Your task to perform on an android device: Go to Google maps Image 0: 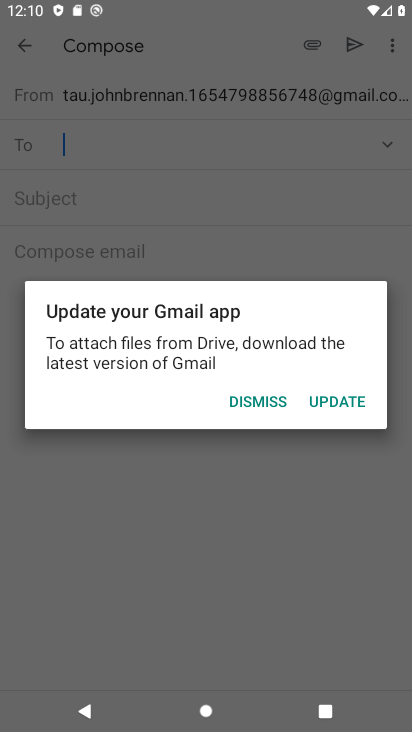
Step 0: press home button
Your task to perform on an android device: Go to Google maps Image 1: 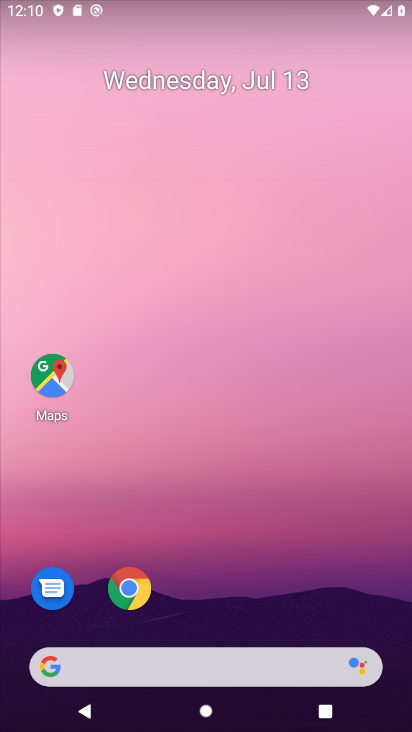
Step 1: drag from (200, 648) to (195, 269)
Your task to perform on an android device: Go to Google maps Image 2: 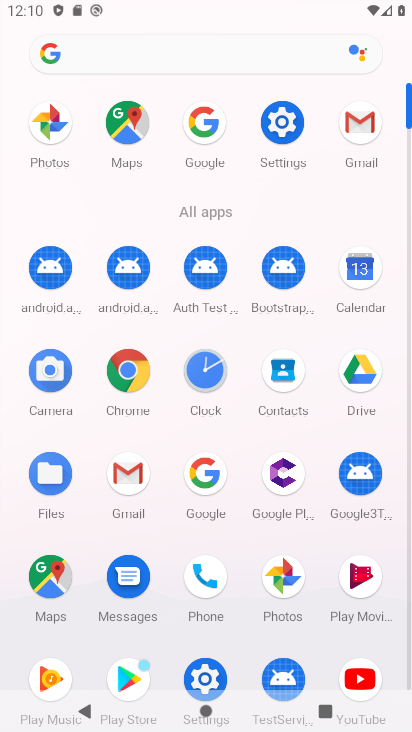
Step 2: click (183, 469)
Your task to perform on an android device: Go to Google maps Image 3: 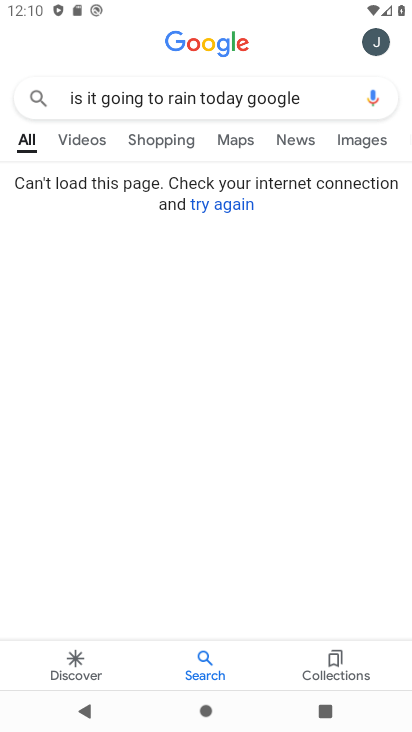
Step 3: click (240, 210)
Your task to perform on an android device: Go to Google maps Image 4: 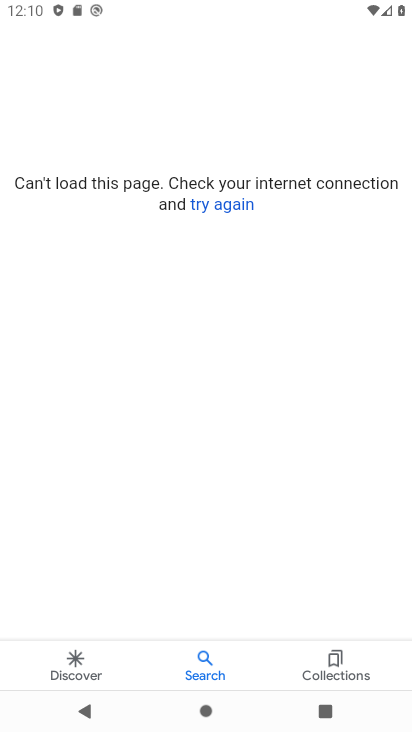
Step 4: task complete